Your task to perform on an android device: Open Google Chrome and open the bookmarks view Image 0: 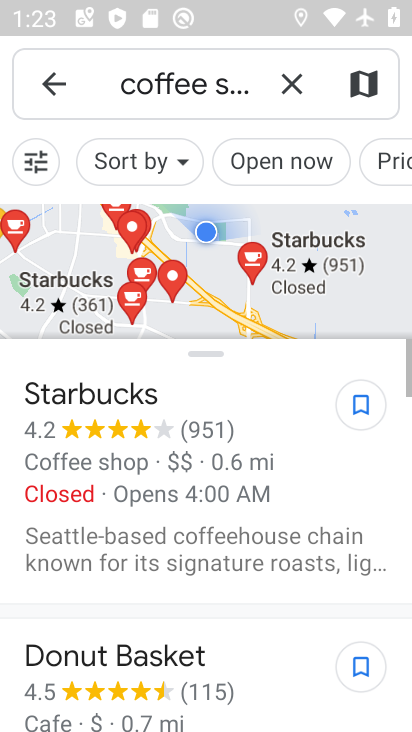
Step 0: press home button
Your task to perform on an android device: Open Google Chrome and open the bookmarks view Image 1: 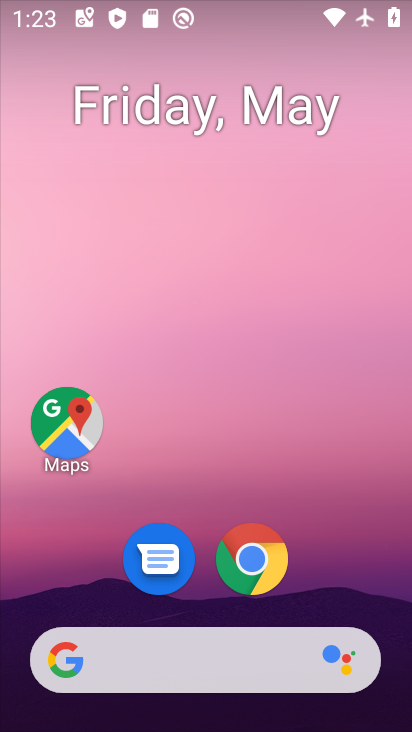
Step 1: click (253, 567)
Your task to perform on an android device: Open Google Chrome and open the bookmarks view Image 2: 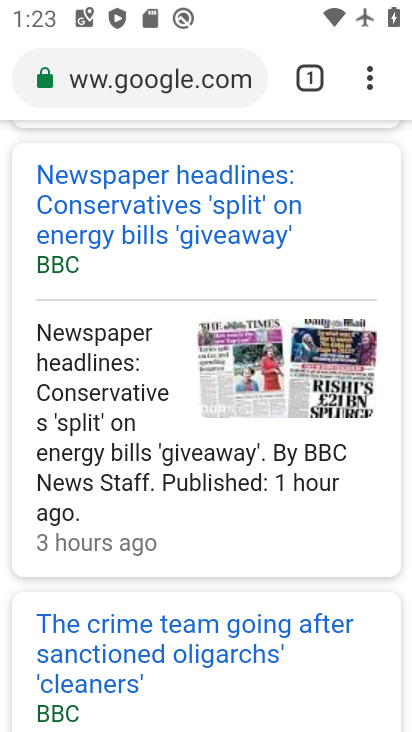
Step 2: task complete